Your task to perform on an android device: check out phone information Image 0: 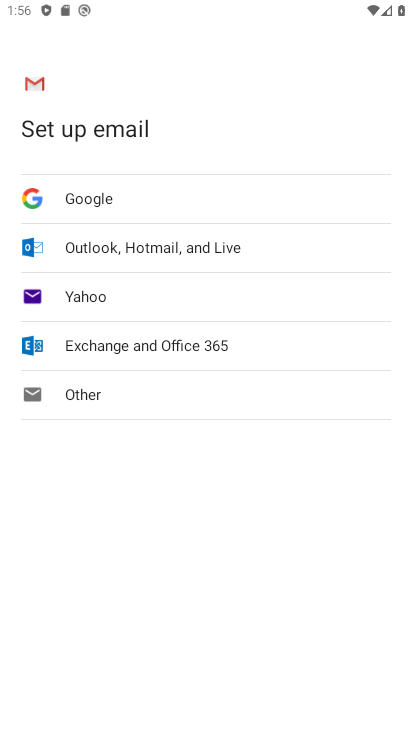
Step 0: press home button
Your task to perform on an android device: check out phone information Image 1: 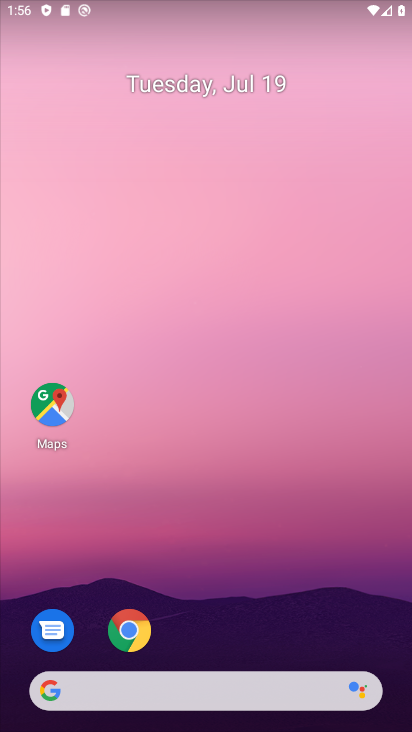
Step 1: drag from (227, 609) to (314, 94)
Your task to perform on an android device: check out phone information Image 2: 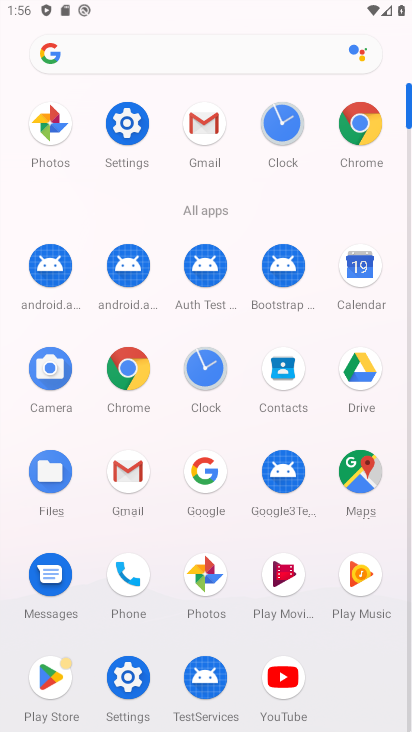
Step 2: click (136, 572)
Your task to perform on an android device: check out phone information Image 3: 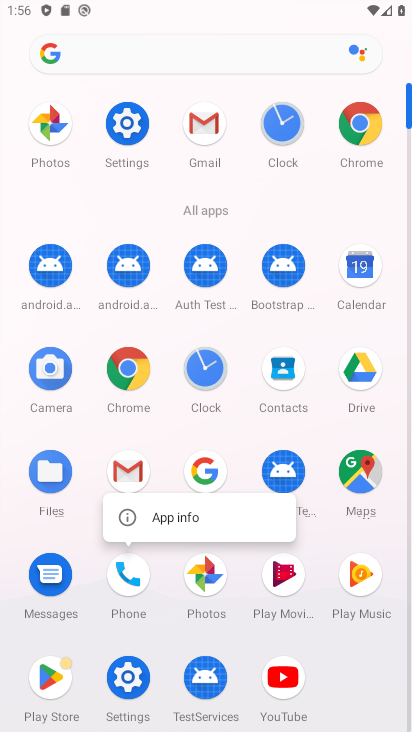
Step 3: click (126, 567)
Your task to perform on an android device: check out phone information Image 4: 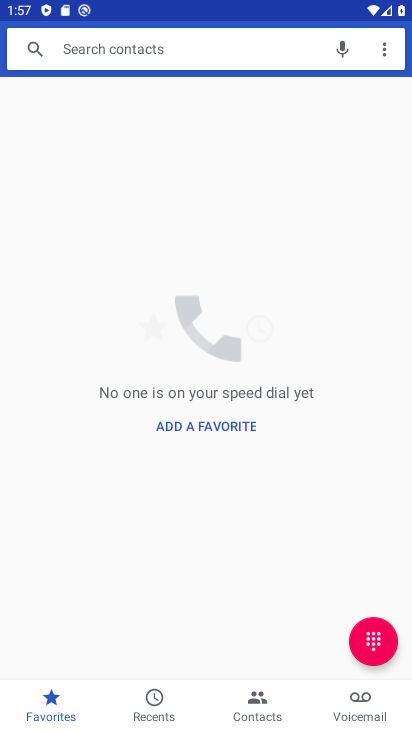
Step 4: click (382, 48)
Your task to perform on an android device: check out phone information Image 5: 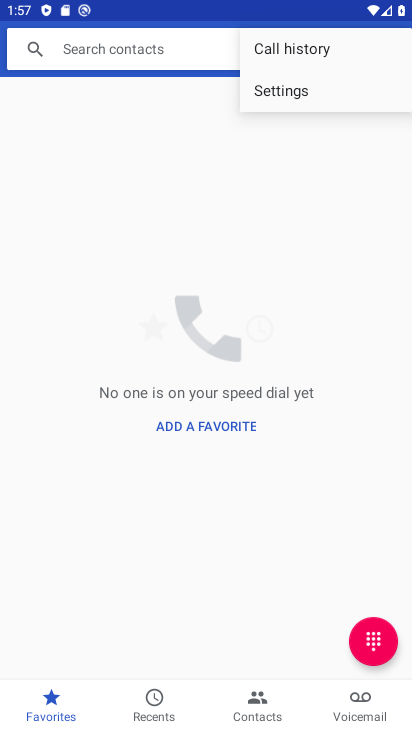
Step 5: click (338, 96)
Your task to perform on an android device: check out phone information Image 6: 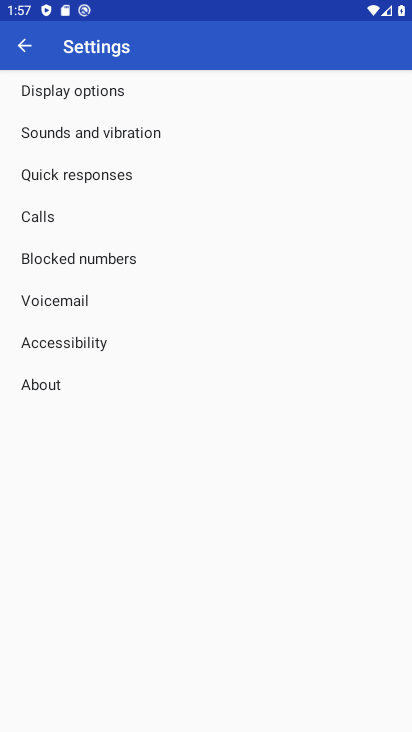
Step 6: click (46, 377)
Your task to perform on an android device: check out phone information Image 7: 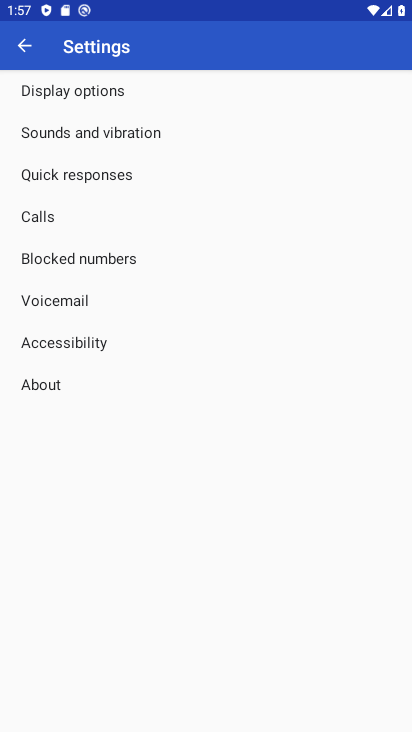
Step 7: click (42, 386)
Your task to perform on an android device: check out phone information Image 8: 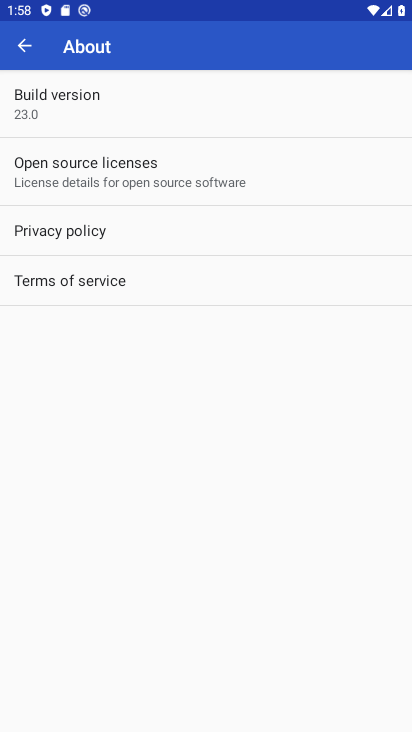
Step 8: task complete